Your task to perform on an android device: Go to Reddit.com Image 0: 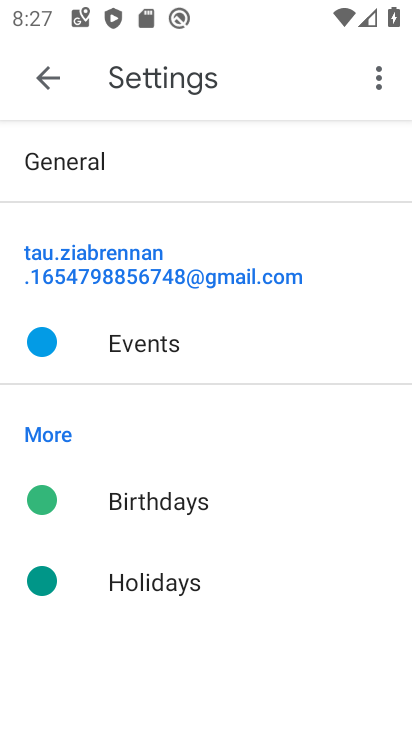
Step 0: press home button
Your task to perform on an android device: Go to Reddit.com Image 1: 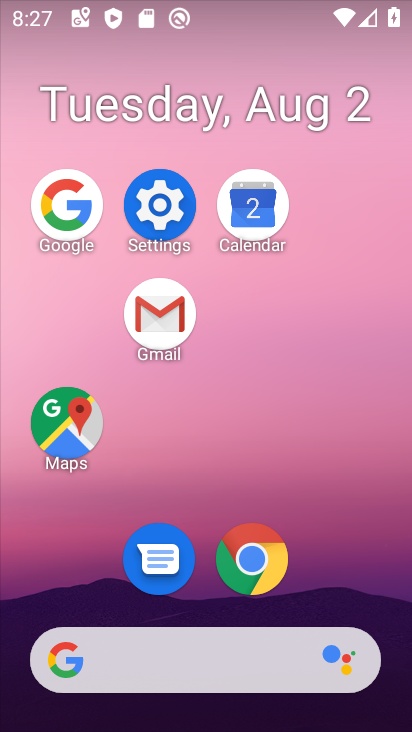
Step 1: click (251, 547)
Your task to perform on an android device: Go to Reddit.com Image 2: 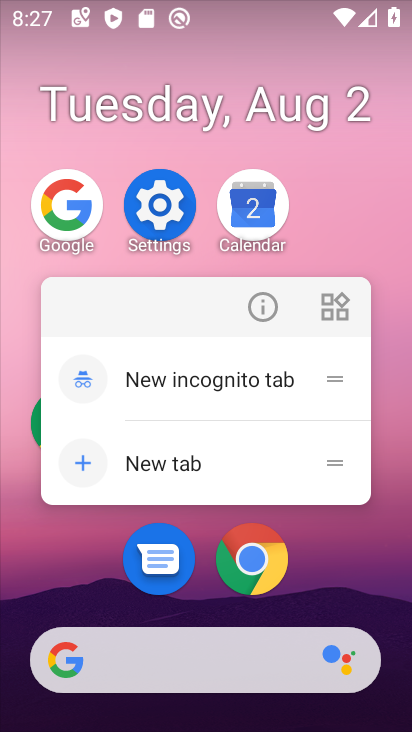
Step 2: click (251, 544)
Your task to perform on an android device: Go to Reddit.com Image 3: 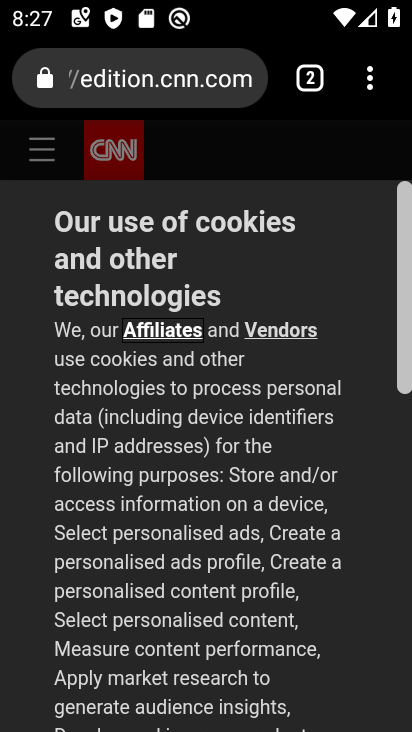
Step 3: click (308, 73)
Your task to perform on an android device: Go to Reddit.com Image 4: 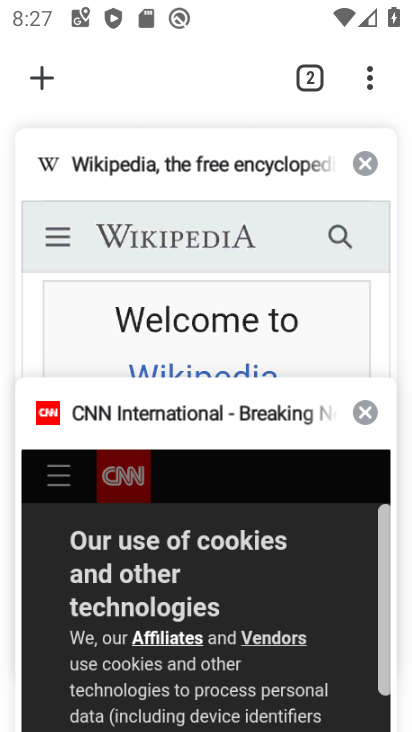
Step 4: click (43, 58)
Your task to perform on an android device: Go to Reddit.com Image 5: 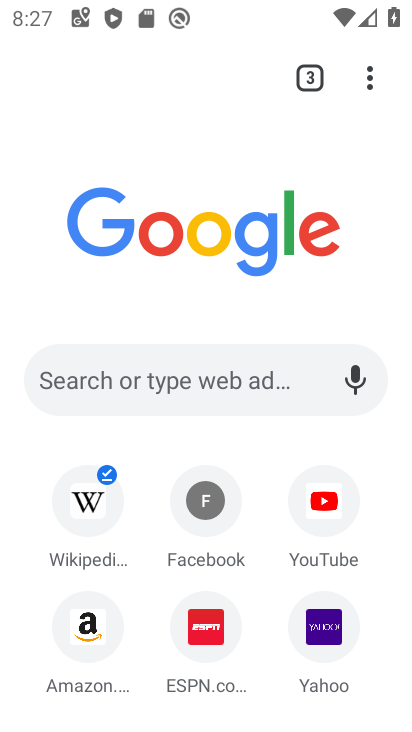
Step 5: click (196, 364)
Your task to perform on an android device: Go to Reddit.com Image 6: 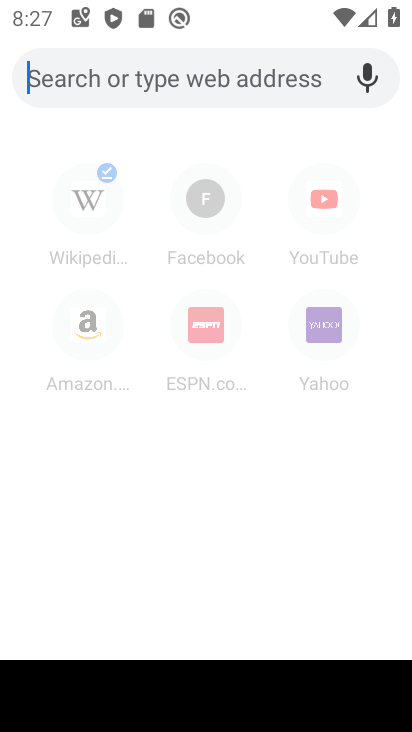
Step 6: type "reddit"
Your task to perform on an android device: Go to Reddit.com Image 7: 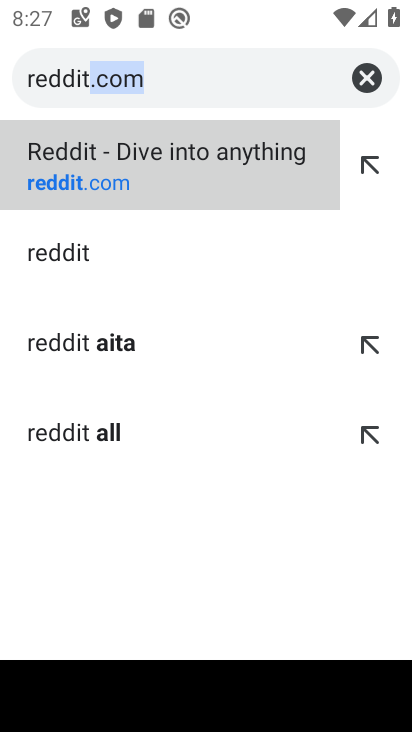
Step 7: click (89, 178)
Your task to perform on an android device: Go to Reddit.com Image 8: 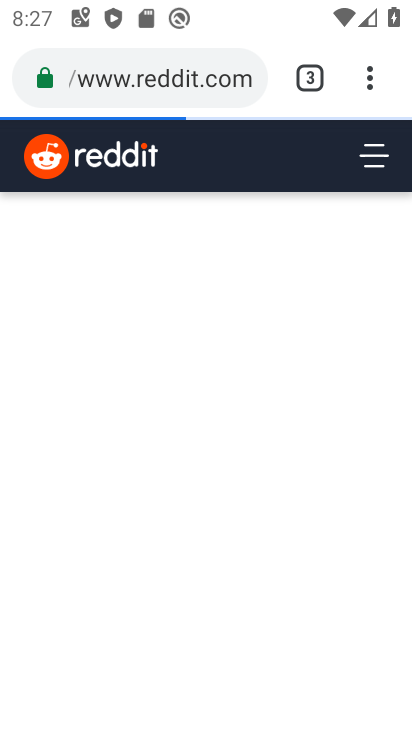
Step 8: task complete